Your task to perform on an android device: Look up the best gaming headphones on Best Buy Image 0: 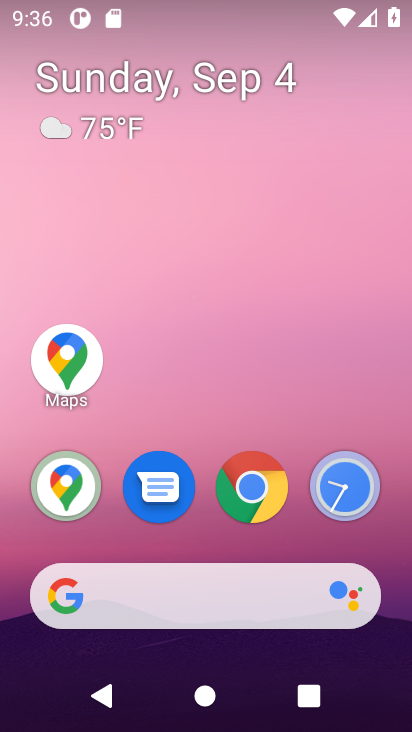
Step 0: click (72, 380)
Your task to perform on an android device: Look up the best gaming headphones on Best Buy Image 1: 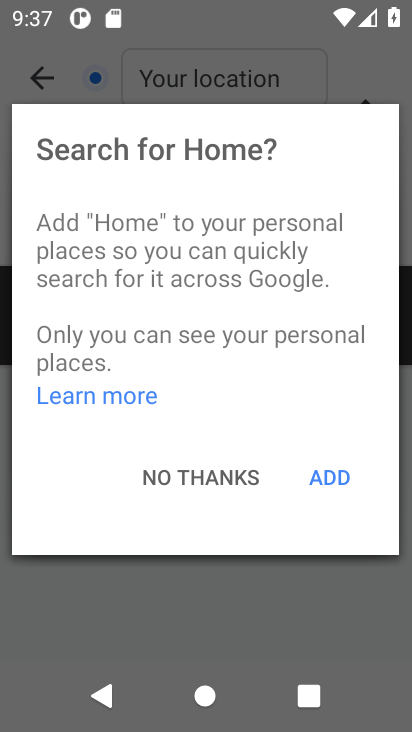
Step 1: click (339, 448)
Your task to perform on an android device: Look up the best gaming headphones on Best Buy Image 2: 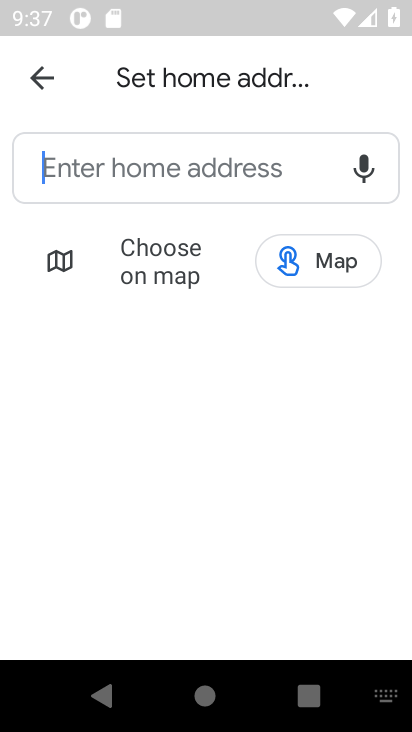
Step 2: task complete